Your task to perform on an android device: turn off sleep mode Image 0: 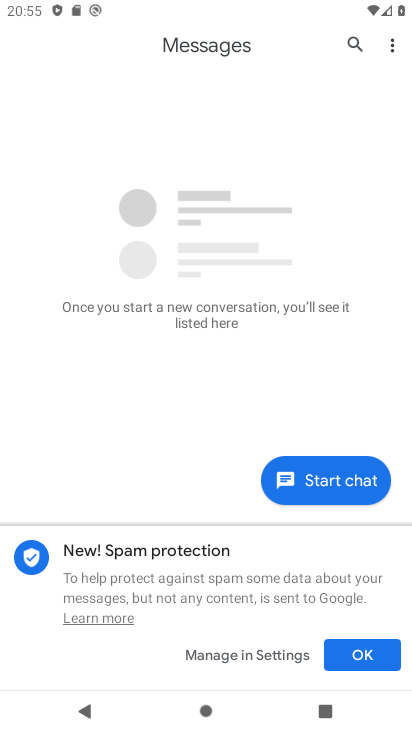
Step 0: press home button
Your task to perform on an android device: turn off sleep mode Image 1: 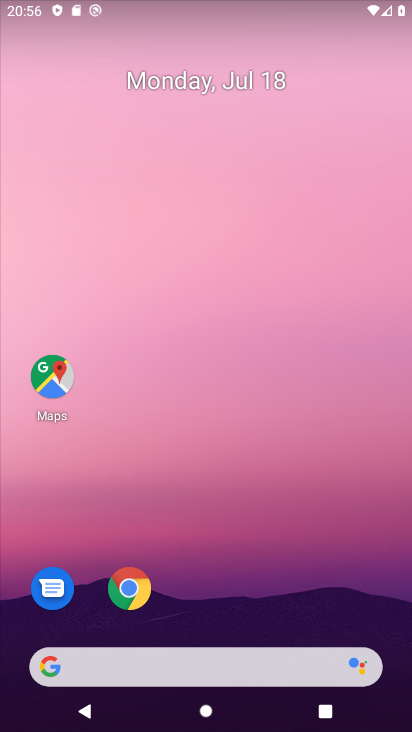
Step 1: drag from (303, 556) to (407, 27)
Your task to perform on an android device: turn off sleep mode Image 2: 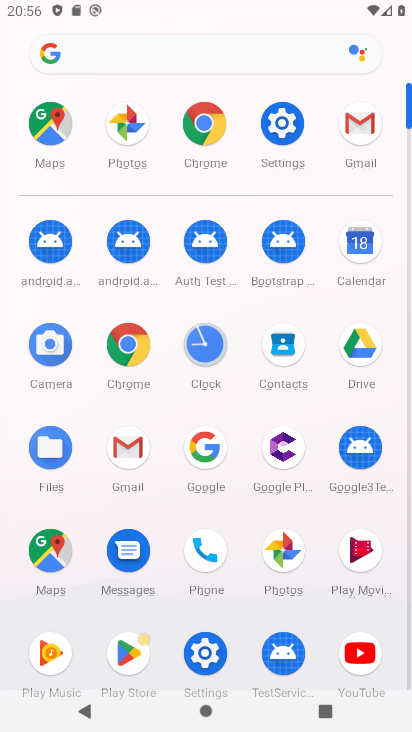
Step 2: click (293, 115)
Your task to perform on an android device: turn off sleep mode Image 3: 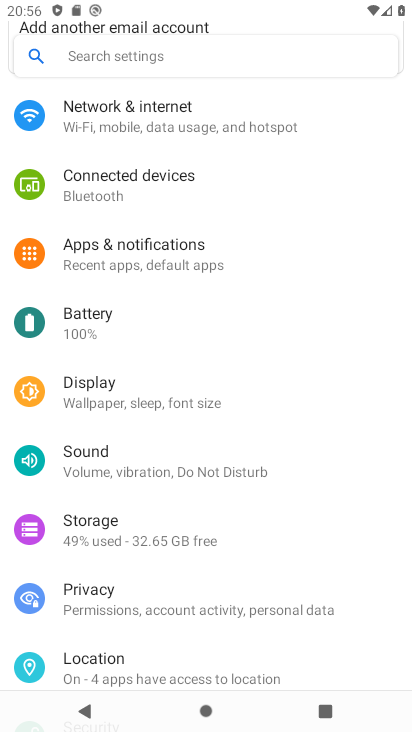
Step 3: click (153, 408)
Your task to perform on an android device: turn off sleep mode Image 4: 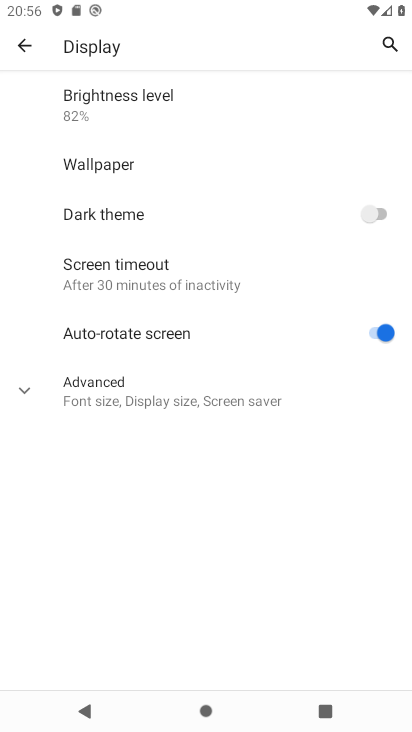
Step 4: task complete